Your task to perform on an android device: Open Google Image 0: 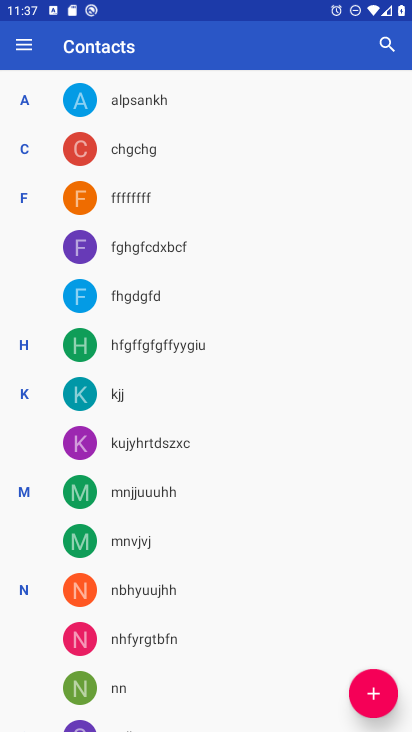
Step 0: press home button
Your task to perform on an android device: Open Google Image 1: 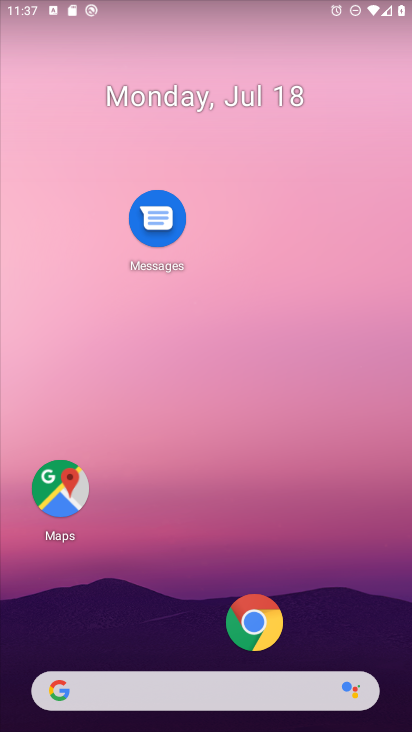
Step 1: drag from (257, 475) to (296, 181)
Your task to perform on an android device: Open Google Image 2: 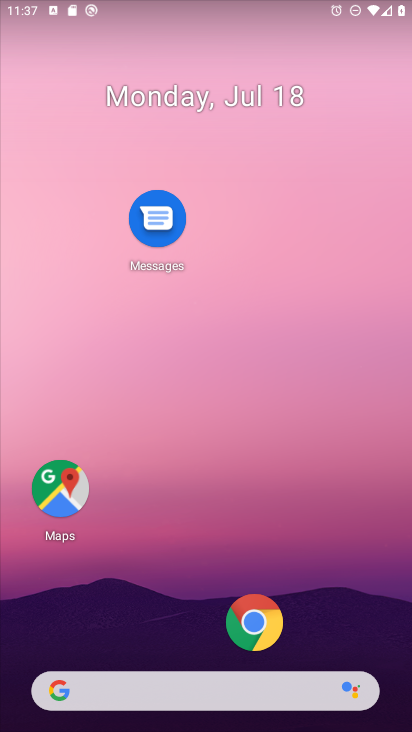
Step 2: drag from (223, 519) to (260, 213)
Your task to perform on an android device: Open Google Image 3: 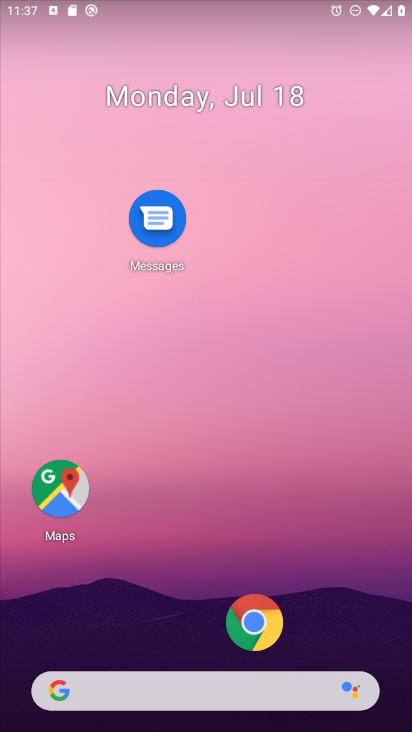
Step 3: drag from (155, 650) to (206, 170)
Your task to perform on an android device: Open Google Image 4: 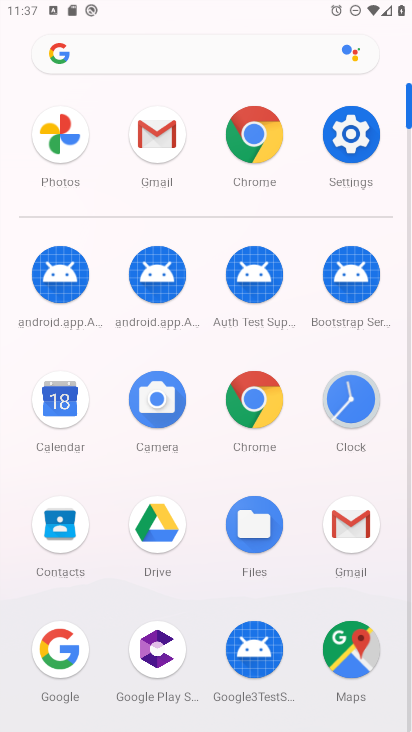
Step 4: click (37, 676)
Your task to perform on an android device: Open Google Image 5: 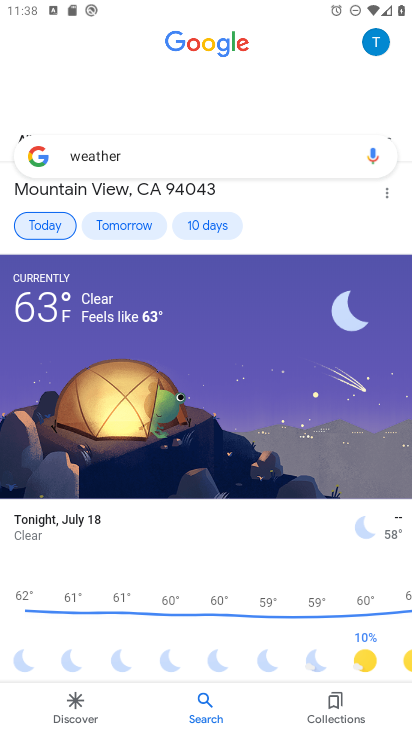
Step 5: task complete